Your task to perform on an android device: Open calendar and show me the second week of next month Image 0: 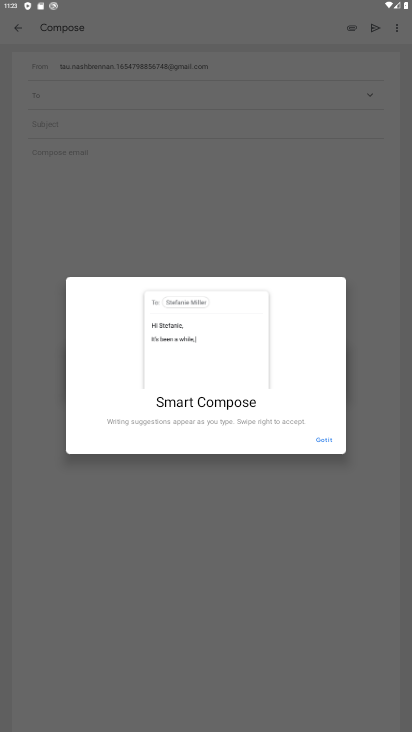
Step 0: press home button
Your task to perform on an android device: Open calendar and show me the second week of next month Image 1: 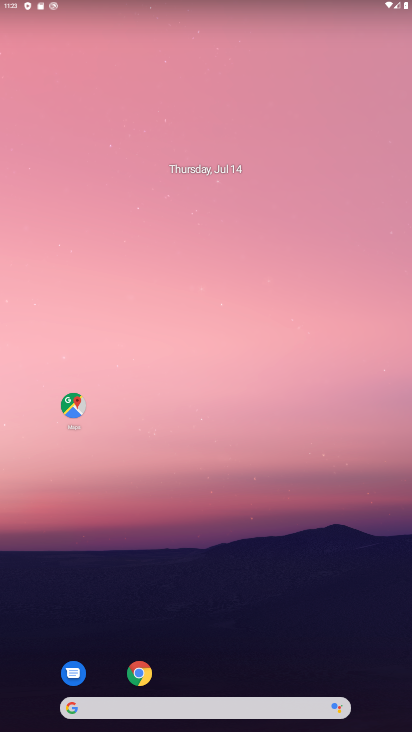
Step 1: drag from (269, 647) to (206, 99)
Your task to perform on an android device: Open calendar and show me the second week of next month Image 2: 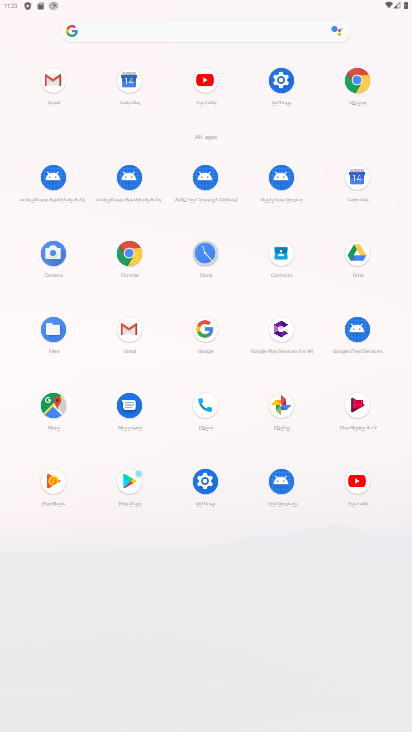
Step 2: click (353, 175)
Your task to perform on an android device: Open calendar and show me the second week of next month Image 3: 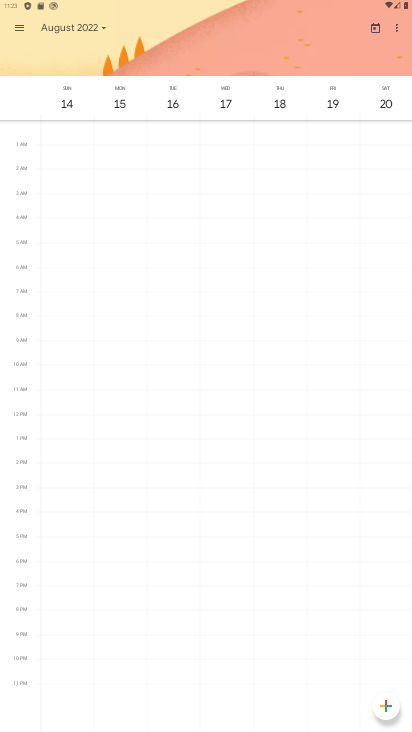
Step 3: click (85, 25)
Your task to perform on an android device: Open calendar and show me the second week of next month Image 4: 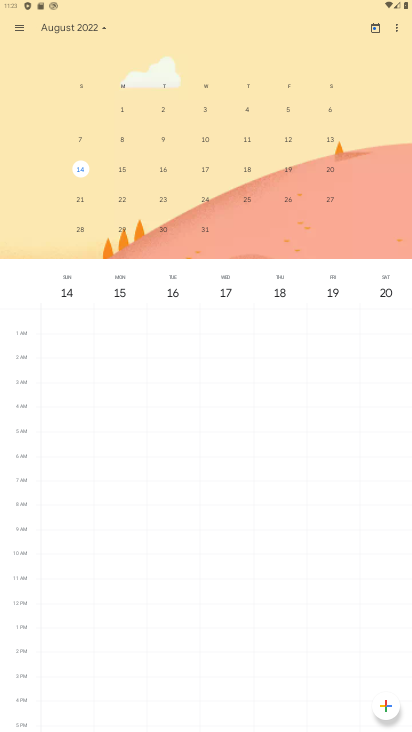
Step 4: click (124, 142)
Your task to perform on an android device: Open calendar and show me the second week of next month Image 5: 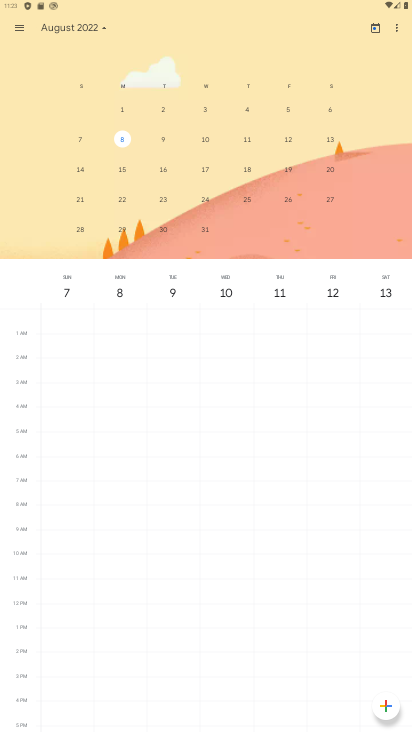
Step 5: task complete